Your task to perform on an android device: check storage Image 0: 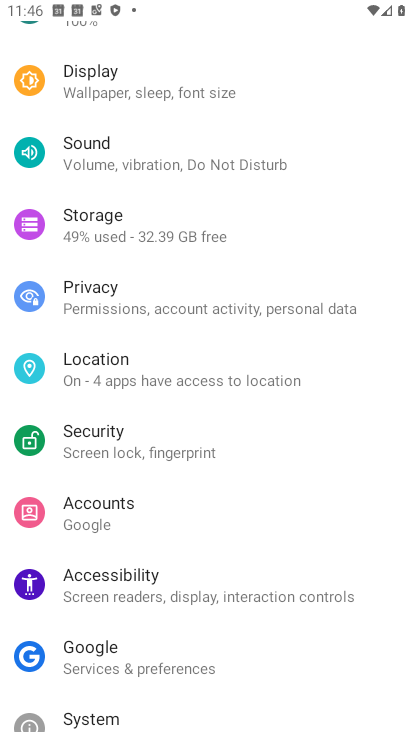
Step 0: press home button
Your task to perform on an android device: check storage Image 1: 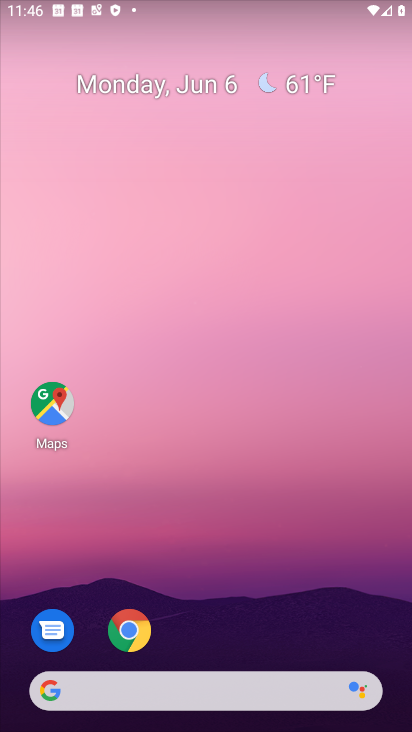
Step 1: drag from (363, 607) to (301, 165)
Your task to perform on an android device: check storage Image 2: 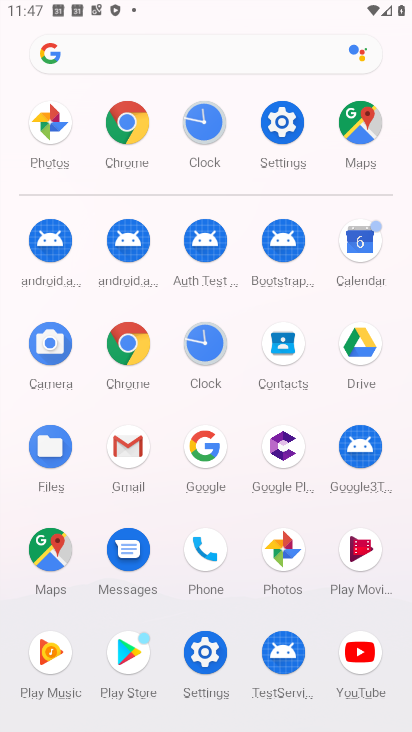
Step 2: click (207, 669)
Your task to perform on an android device: check storage Image 3: 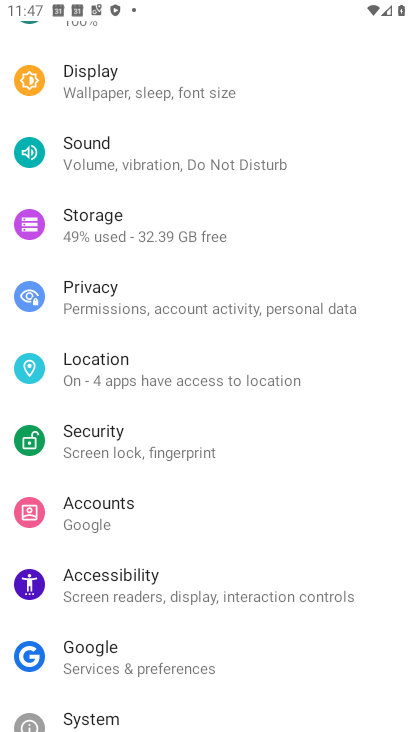
Step 3: drag from (344, 662) to (344, 365)
Your task to perform on an android device: check storage Image 4: 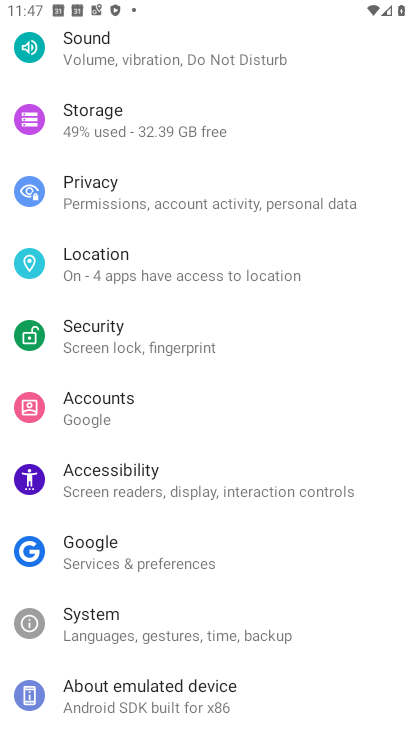
Step 4: click (111, 121)
Your task to perform on an android device: check storage Image 5: 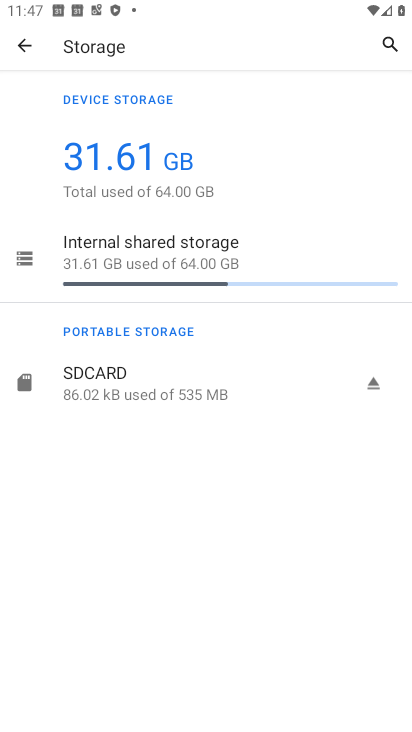
Step 5: click (39, 259)
Your task to perform on an android device: check storage Image 6: 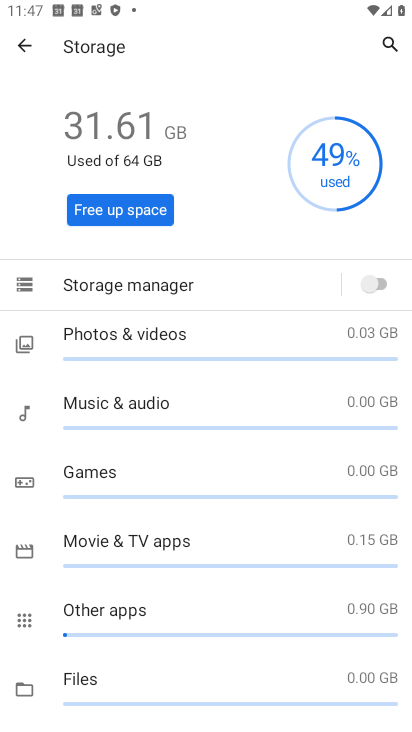
Step 6: task complete